Your task to perform on an android device: Open maps Image 0: 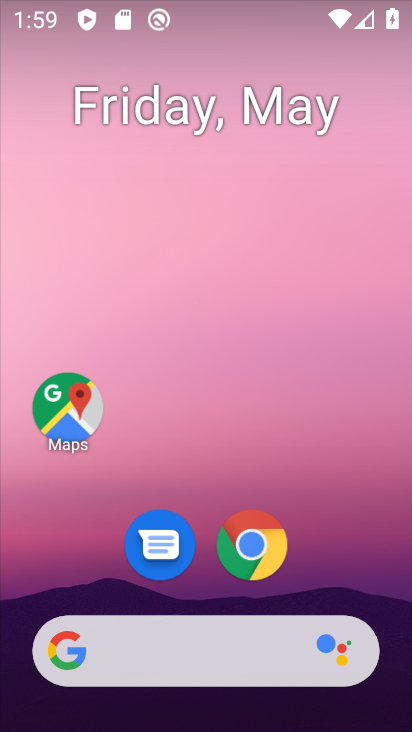
Step 0: click (77, 426)
Your task to perform on an android device: Open maps Image 1: 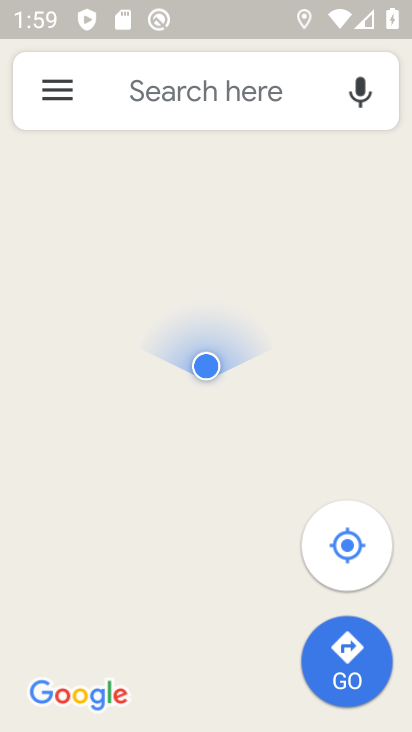
Step 1: task complete